Your task to perform on an android device: create a new album in the google photos Image 0: 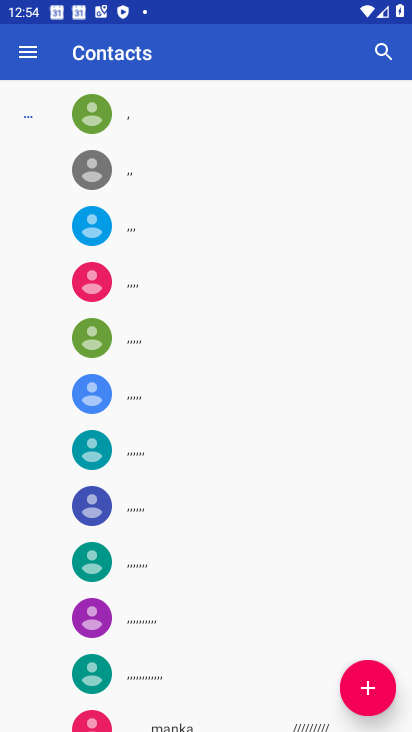
Step 0: press home button
Your task to perform on an android device: create a new album in the google photos Image 1: 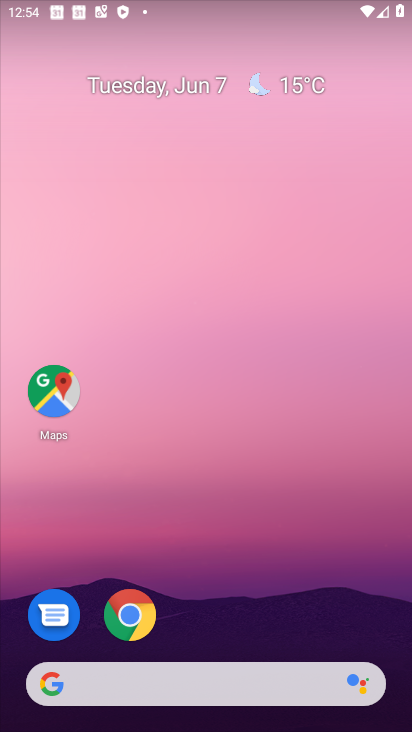
Step 1: drag from (183, 626) to (183, 104)
Your task to perform on an android device: create a new album in the google photos Image 2: 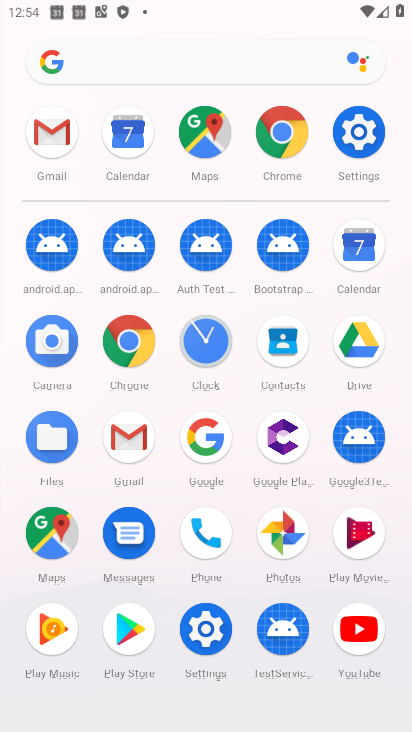
Step 2: click (273, 542)
Your task to perform on an android device: create a new album in the google photos Image 3: 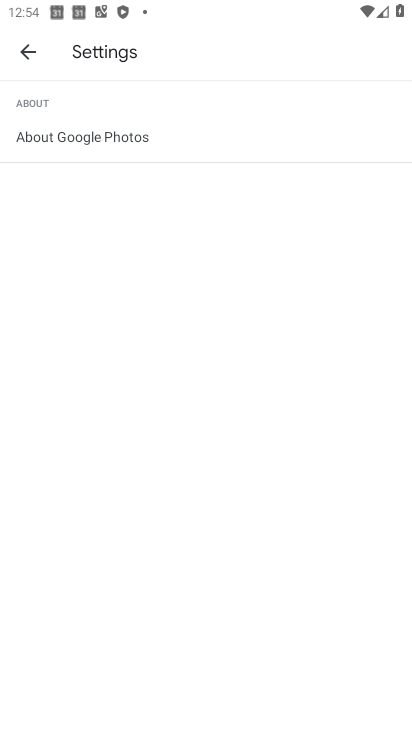
Step 3: click (33, 58)
Your task to perform on an android device: create a new album in the google photos Image 4: 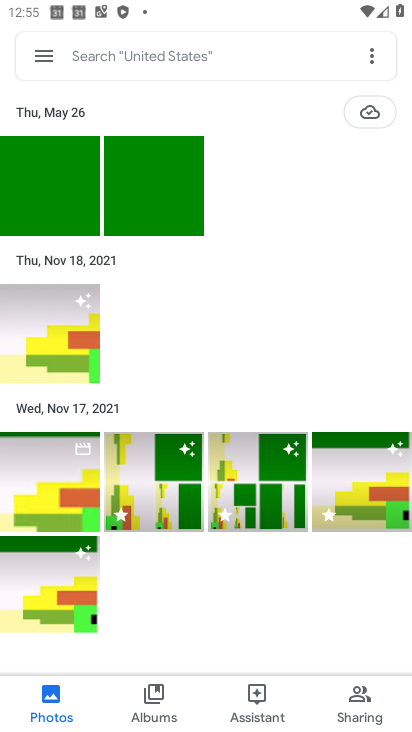
Step 4: click (142, 710)
Your task to perform on an android device: create a new album in the google photos Image 5: 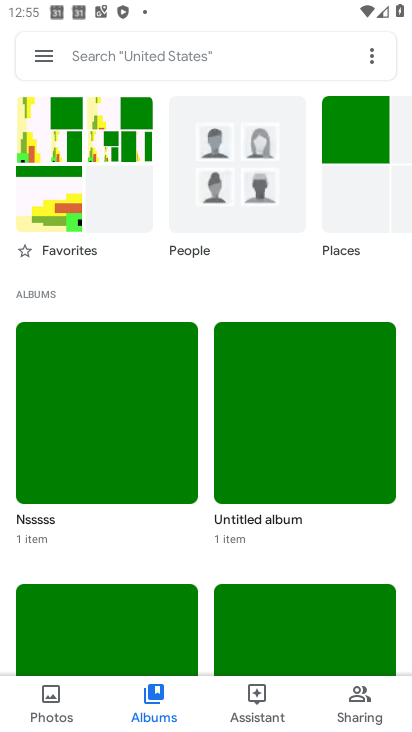
Step 5: drag from (133, 572) to (182, 371)
Your task to perform on an android device: create a new album in the google photos Image 6: 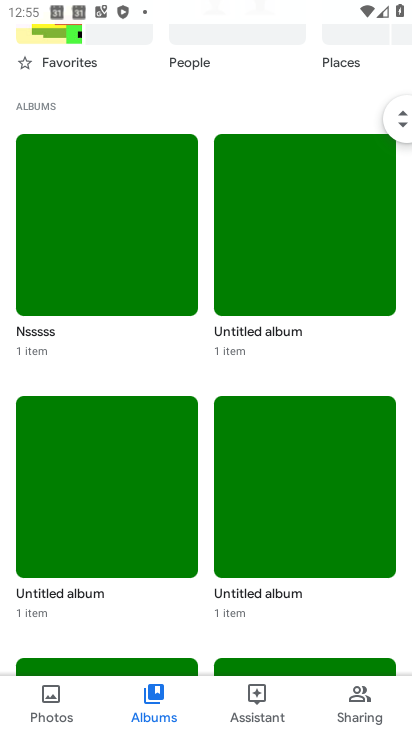
Step 6: drag from (224, 601) to (241, 339)
Your task to perform on an android device: create a new album in the google photos Image 7: 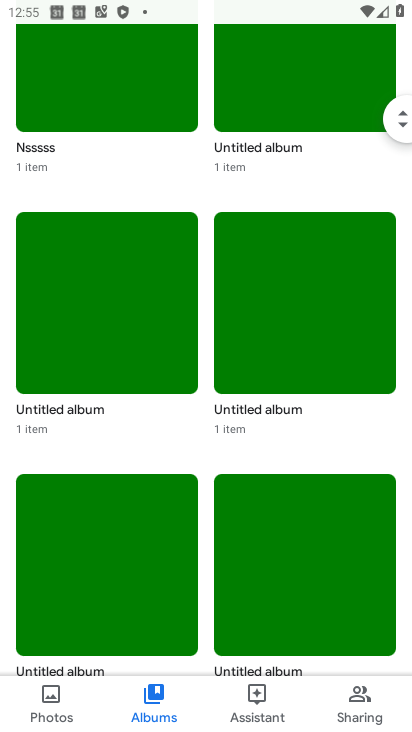
Step 7: drag from (228, 607) to (239, 253)
Your task to perform on an android device: create a new album in the google photos Image 8: 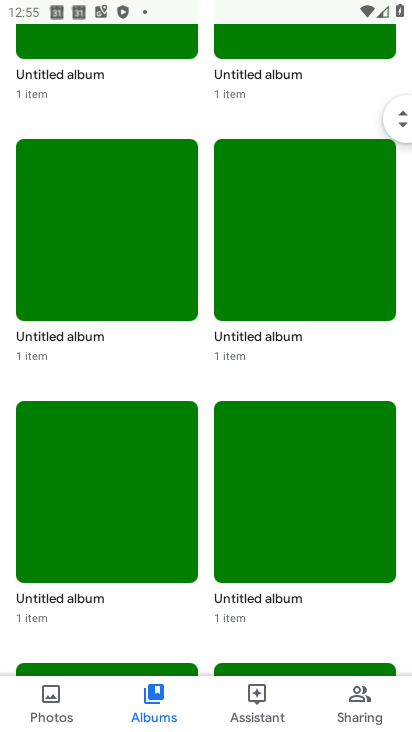
Step 8: drag from (222, 596) to (227, 222)
Your task to perform on an android device: create a new album in the google photos Image 9: 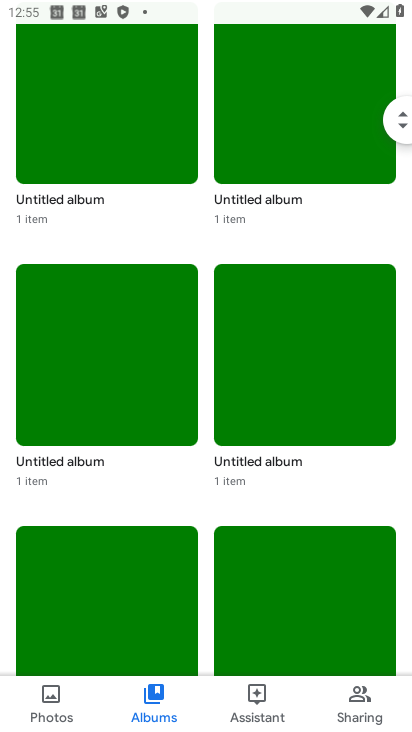
Step 9: drag from (228, 506) to (228, 239)
Your task to perform on an android device: create a new album in the google photos Image 10: 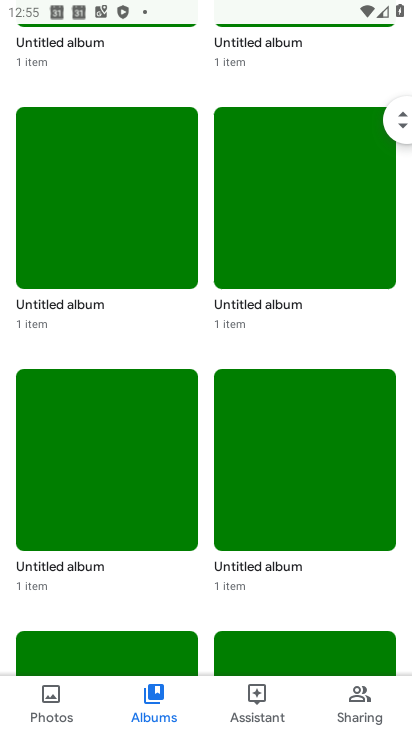
Step 10: drag from (187, 609) to (195, 221)
Your task to perform on an android device: create a new album in the google photos Image 11: 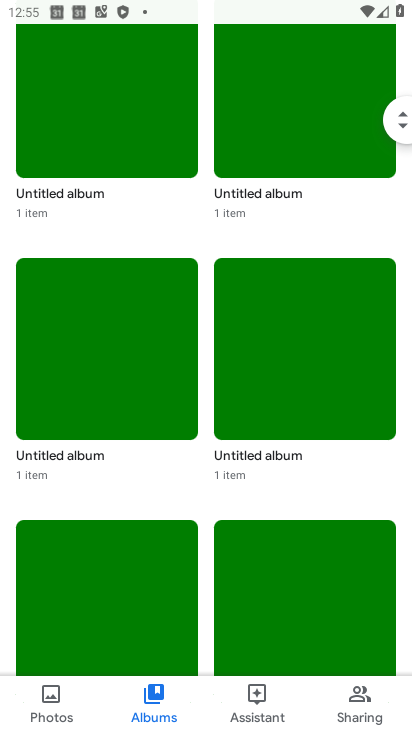
Step 11: drag from (204, 472) to (198, 46)
Your task to perform on an android device: create a new album in the google photos Image 12: 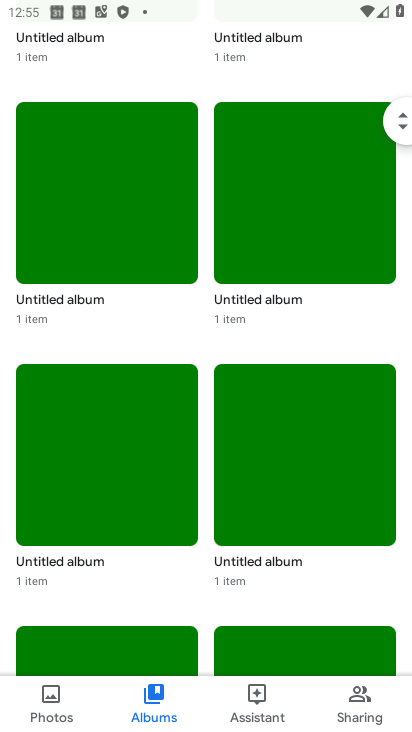
Step 12: drag from (209, 326) to (208, 16)
Your task to perform on an android device: create a new album in the google photos Image 13: 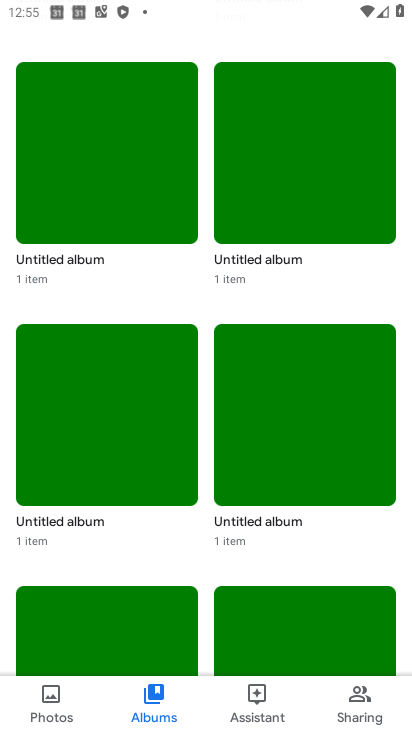
Step 13: drag from (222, 611) to (230, 159)
Your task to perform on an android device: create a new album in the google photos Image 14: 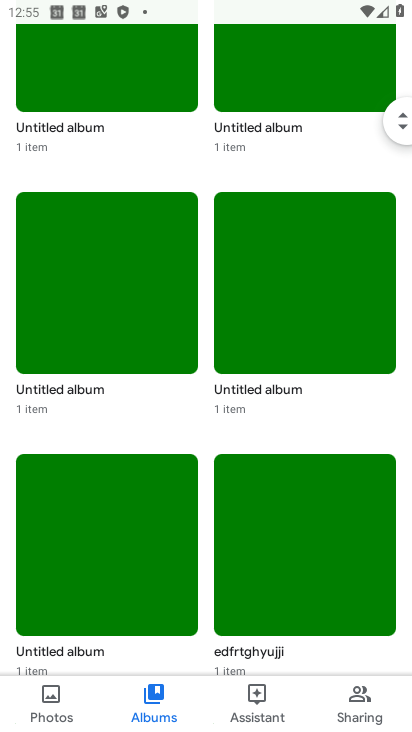
Step 14: drag from (205, 600) to (206, 143)
Your task to perform on an android device: create a new album in the google photos Image 15: 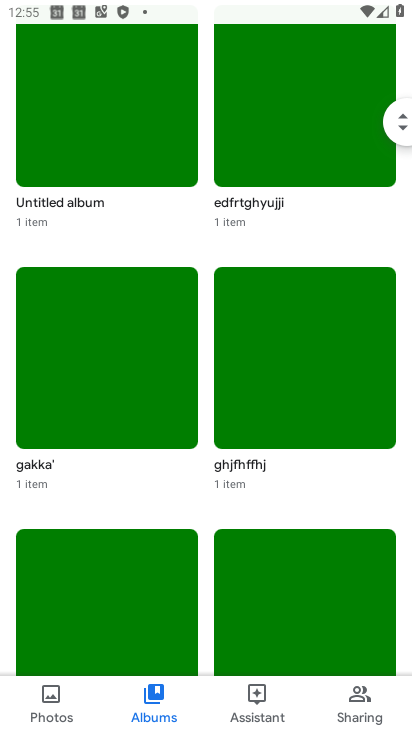
Step 15: drag from (222, 488) to (225, 90)
Your task to perform on an android device: create a new album in the google photos Image 16: 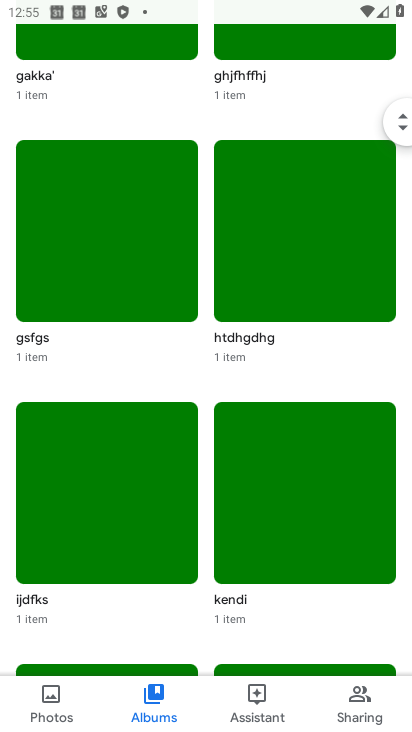
Step 16: drag from (199, 136) to (190, 549)
Your task to perform on an android device: create a new album in the google photos Image 17: 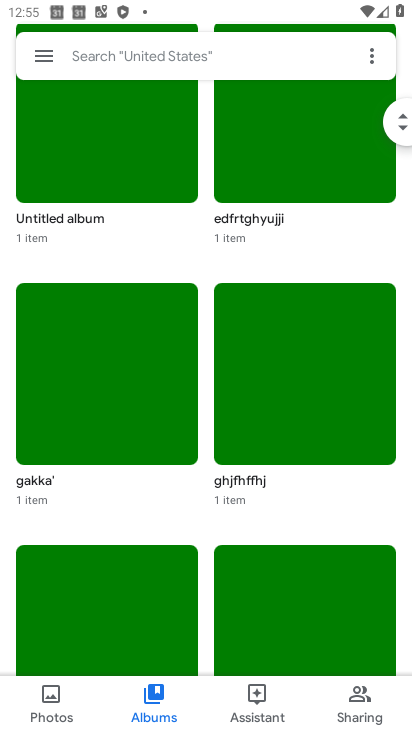
Step 17: drag from (259, 184) to (224, 631)
Your task to perform on an android device: create a new album in the google photos Image 18: 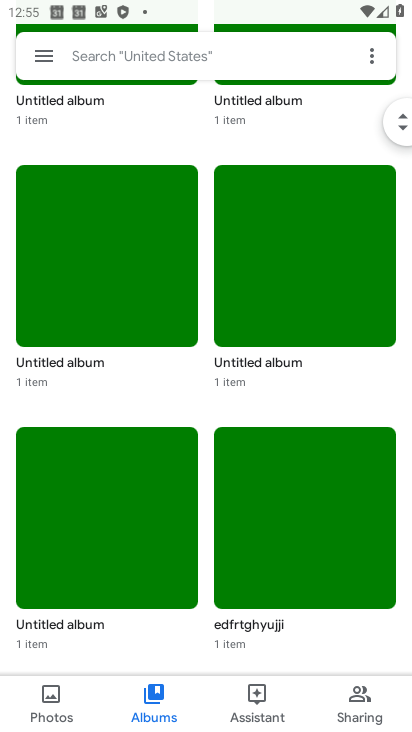
Step 18: drag from (208, 127) to (219, 616)
Your task to perform on an android device: create a new album in the google photos Image 19: 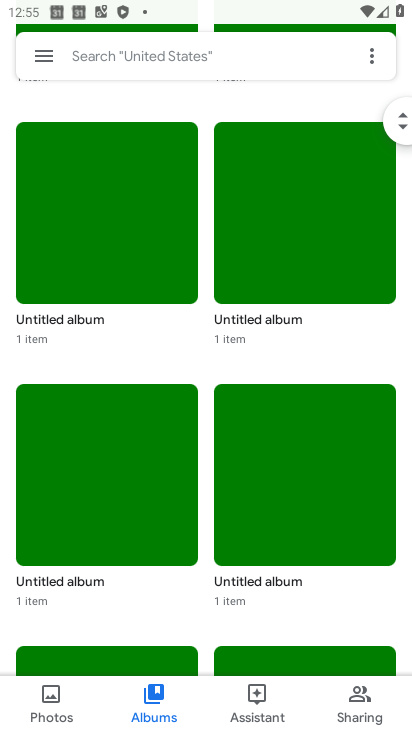
Step 19: drag from (216, 351) to (201, 711)
Your task to perform on an android device: create a new album in the google photos Image 20: 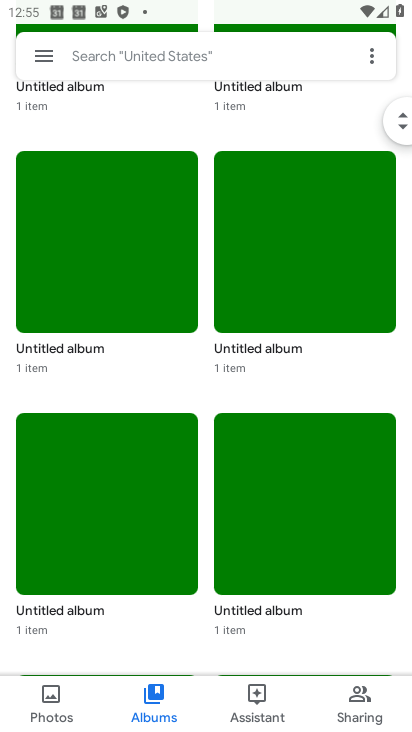
Step 20: drag from (246, 345) to (218, 671)
Your task to perform on an android device: create a new album in the google photos Image 21: 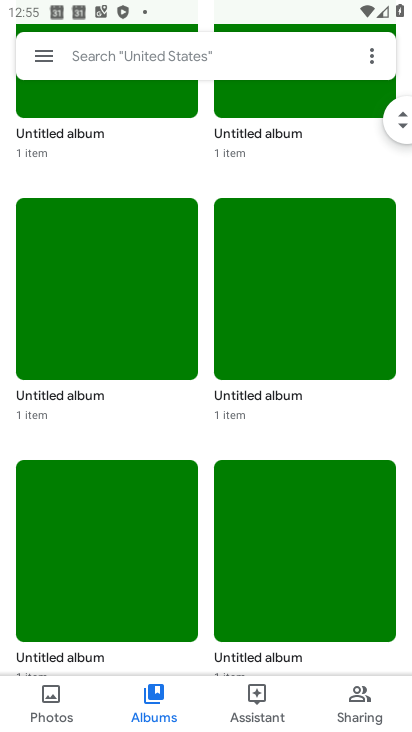
Step 21: drag from (212, 410) to (226, 720)
Your task to perform on an android device: create a new album in the google photos Image 22: 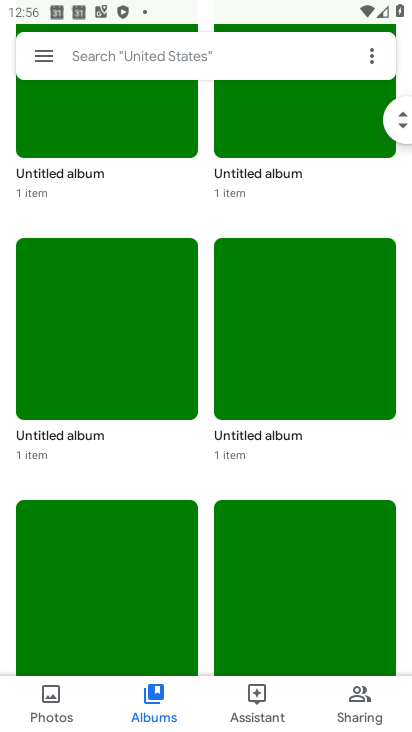
Step 22: drag from (226, 471) to (249, 727)
Your task to perform on an android device: create a new album in the google photos Image 23: 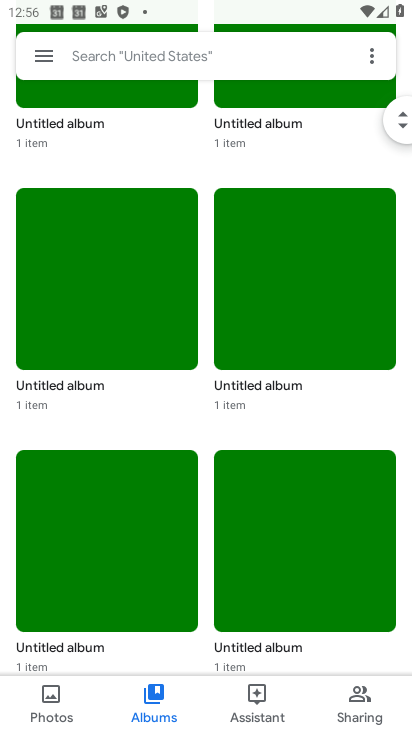
Step 23: drag from (253, 372) to (220, 729)
Your task to perform on an android device: create a new album in the google photos Image 24: 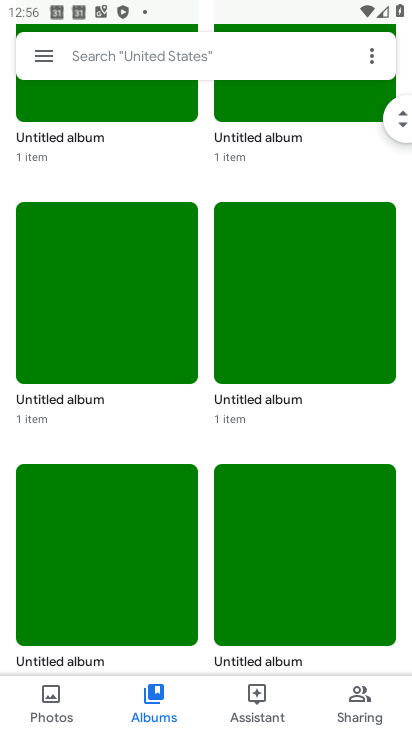
Step 24: drag from (227, 183) to (219, 687)
Your task to perform on an android device: create a new album in the google photos Image 25: 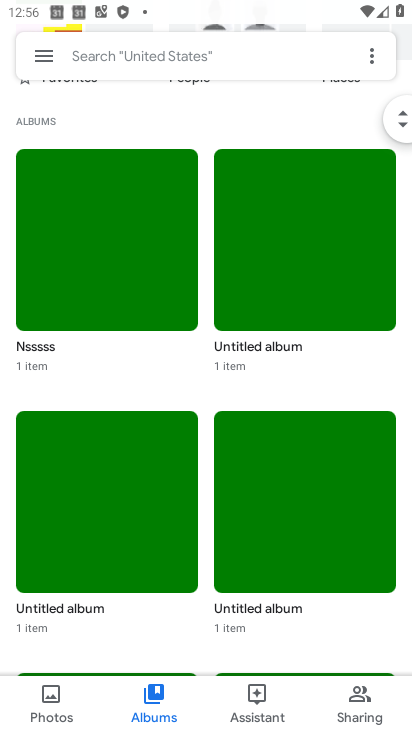
Step 25: drag from (216, 150) to (216, 566)
Your task to perform on an android device: create a new album in the google photos Image 26: 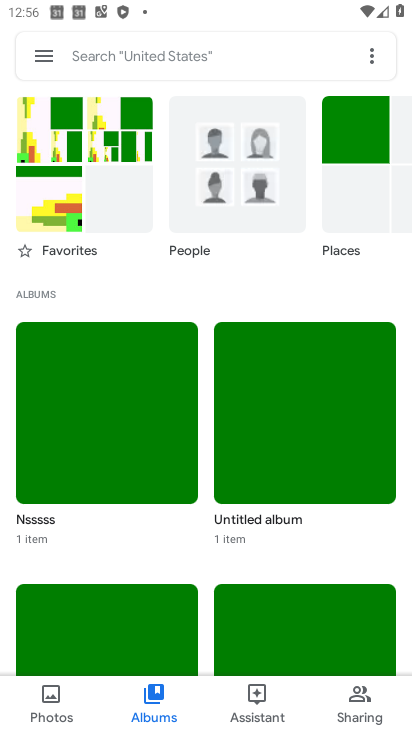
Step 26: click (379, 56)
Your task to perform on an android device: create a new album in the google photos Image 27: 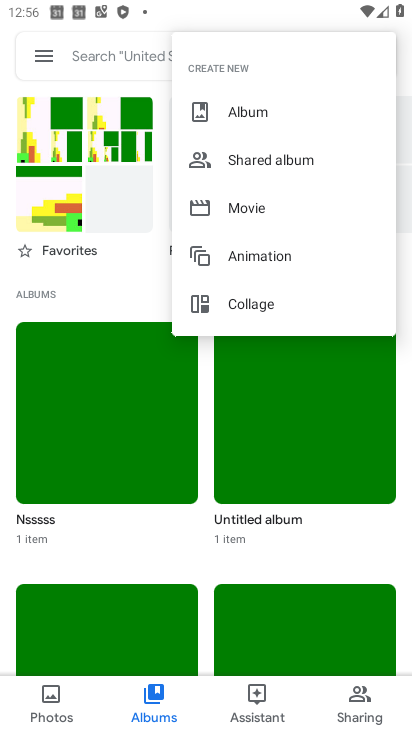
Step 27: click (257, 111)
Your task to perform on an android device: create a new album in the google photos Image 28: 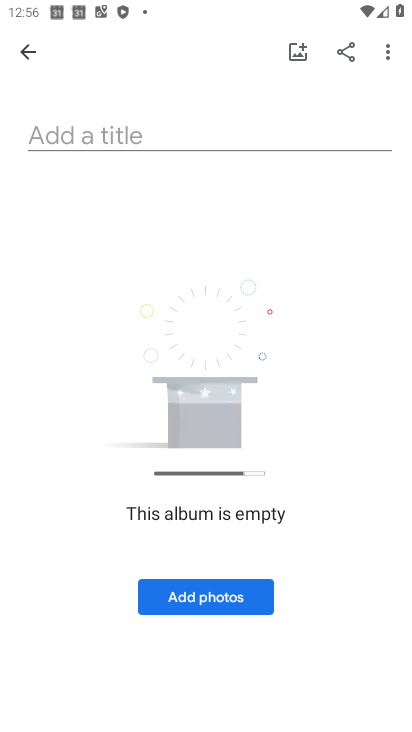
Step 28: click (189, 137)
Your task to perform on an android device: create a new album in the google photos Image 29: 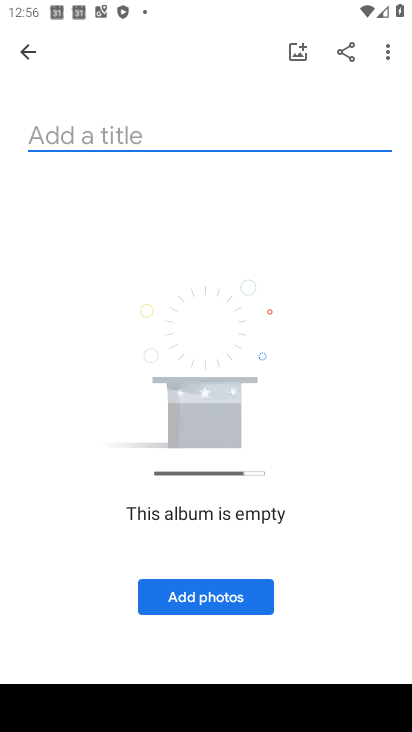
Step 29: type "Abru"
Your task to perform on an android device: create a new album in the google photos Image 30: 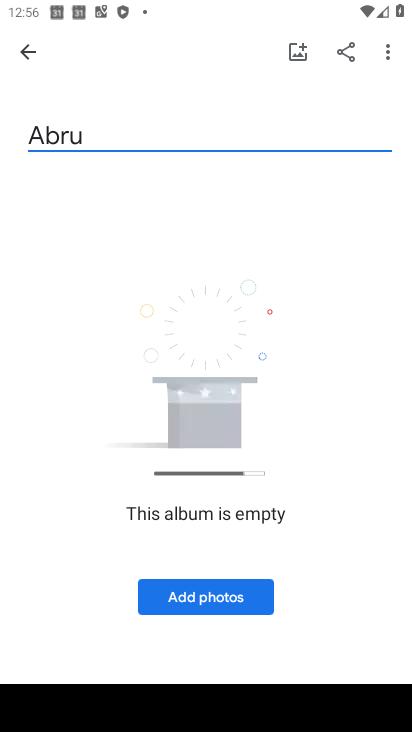
Step 30: click (244, 603)
Your task to perform on an android device: create a new album in the google photos Image 31: 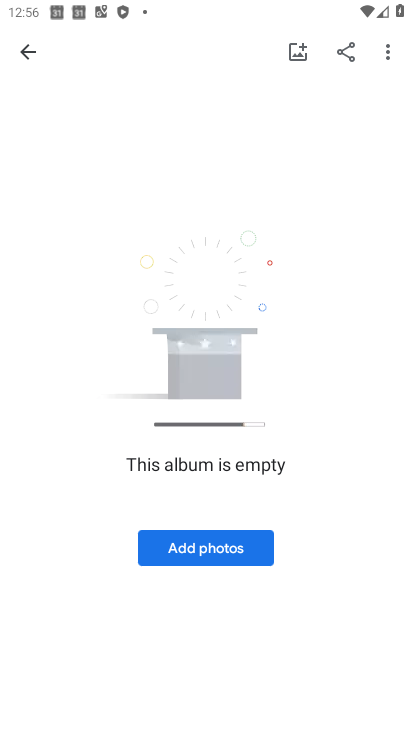
Step 31: click (205, 548)
Your task to perform on an android device: create a new album in the google photos Image 32: 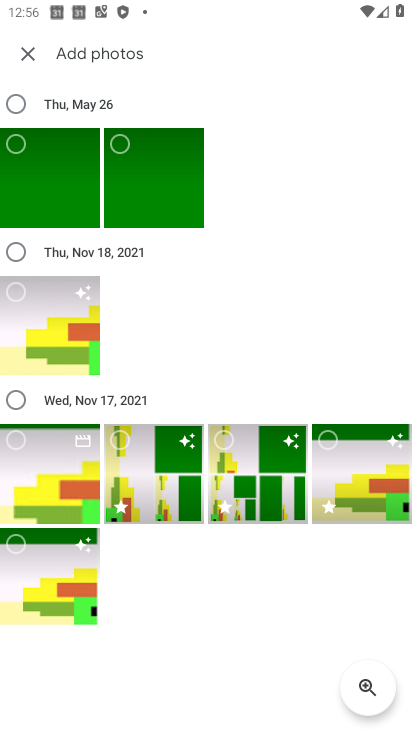
Step 32: click (15, 149)
Your task to perform on an android device: create a new album in the google photos Image 33: 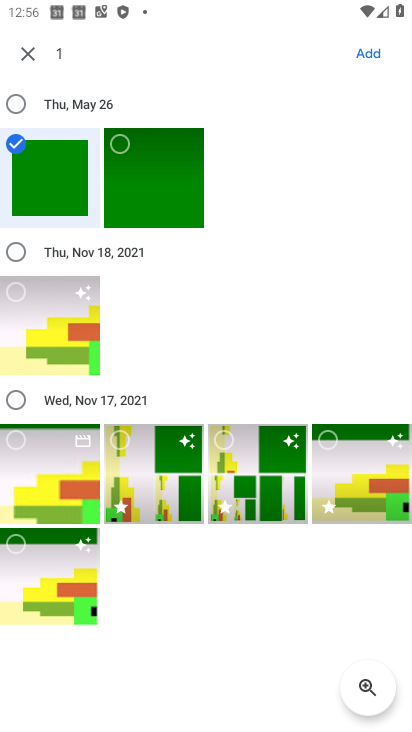
Step 33: click (365, 46)
Your task to perform on an android device: create a new album in the google photos Image 34: 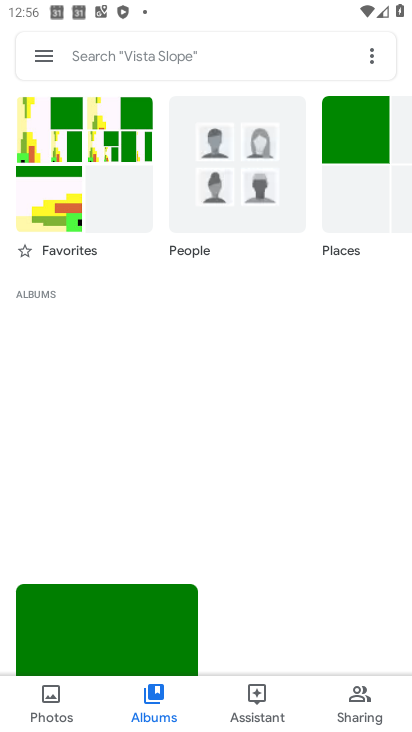
Step 34: task complete